Your task to perform on an android device: turn on sleep mode Image 0: 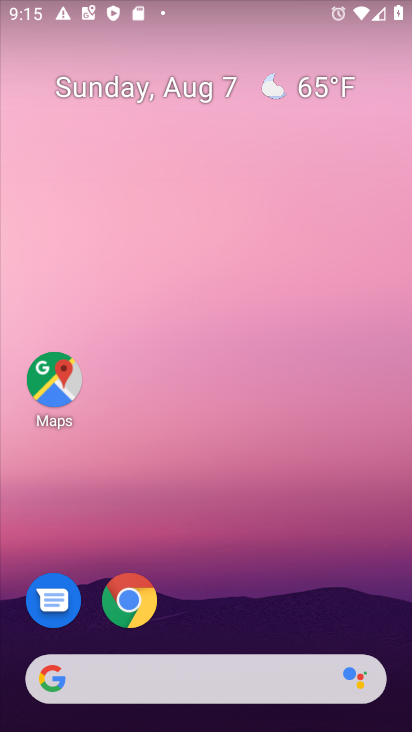
Step 0: drag from (201, 606) to (319, 4)
Your task to perform on an android device: turn on sleep mode Image 1: 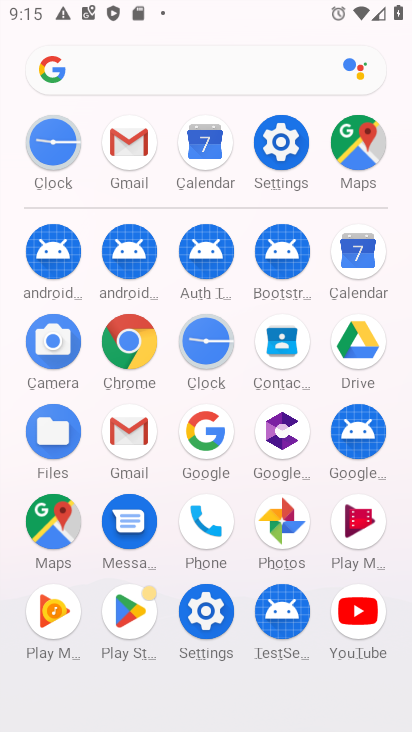
Step 1: click (291, 160)
Your task to perform on an android device: turn on sleep mode Image 2: 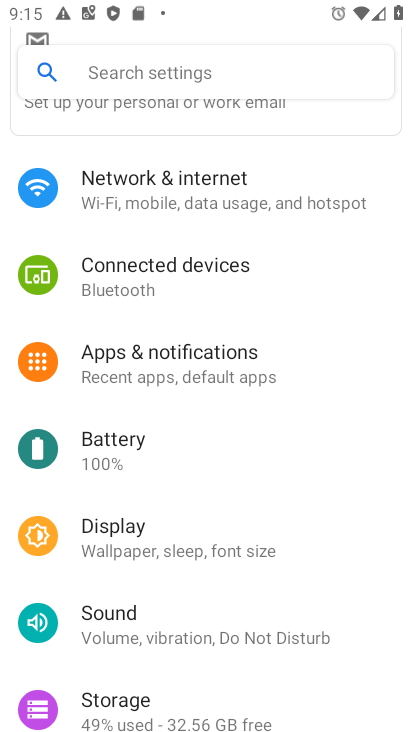
Step 2: task complete